Your task to perform on an android device: Open the Play Movies app and select the watchlist tab. Image 0: 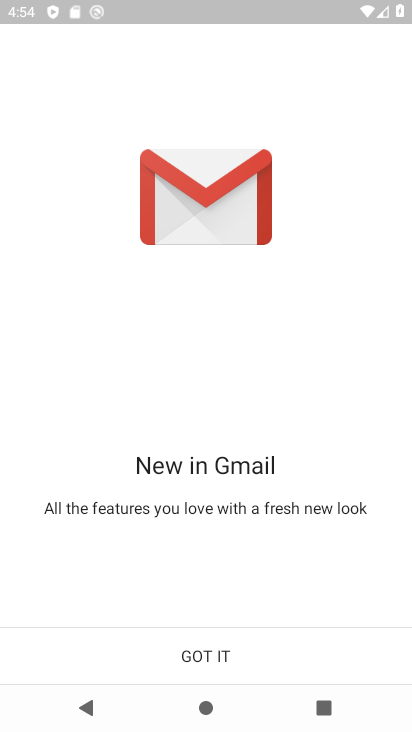
Step 0: press home button
Your task to perform on an android device: Open the Play Movies app and select the watchlist tab. Image 1: 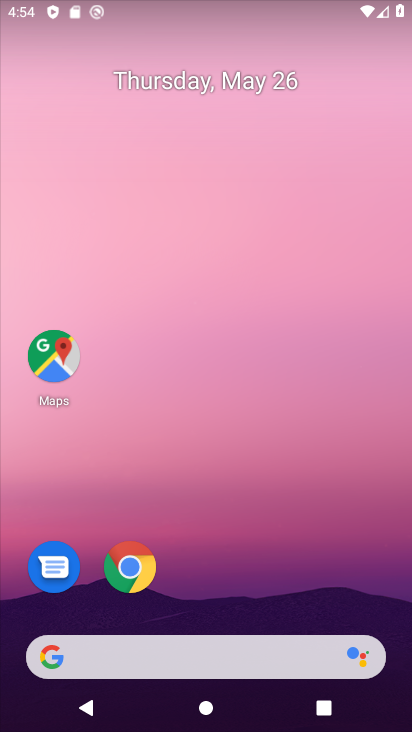
Step 1: drag from (323, 614) to (310, 182)
Your task to perform on an android device: Open the Play Movies app and select the watchlist tab. Image 2: 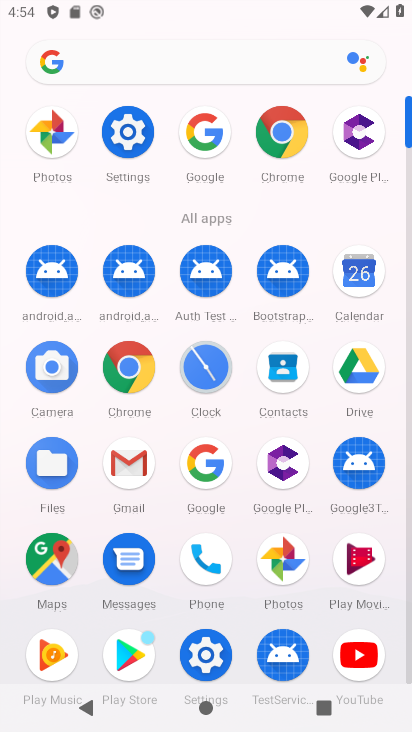
Step 2: click (351, 584)
Your task to perform on an android device: Open the Play Movies app and select the watchlist tab. Image 3: 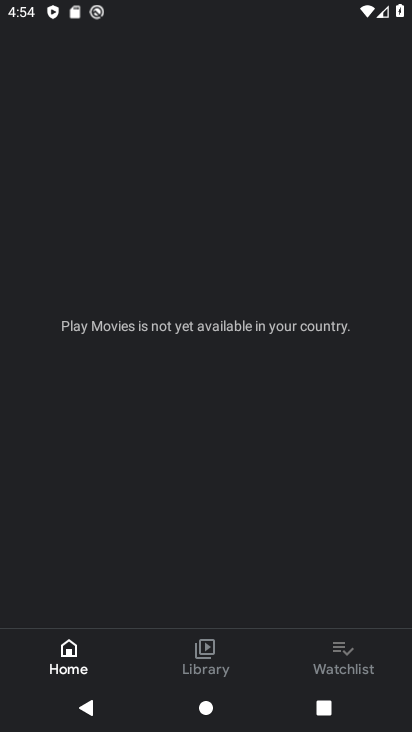
Step 3: click (338, 650)
Your task to perform on an android device: Open the Play Movies app and select the watchlist tab. Image 4: 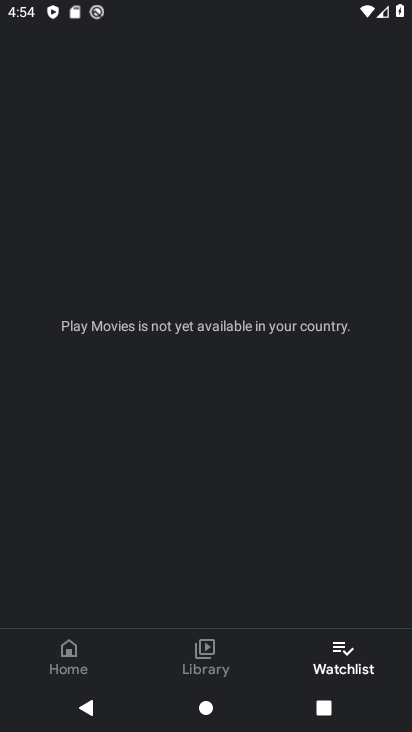
Step 4: task complete